Your task to perform on an android device: Go to settings Image 0: 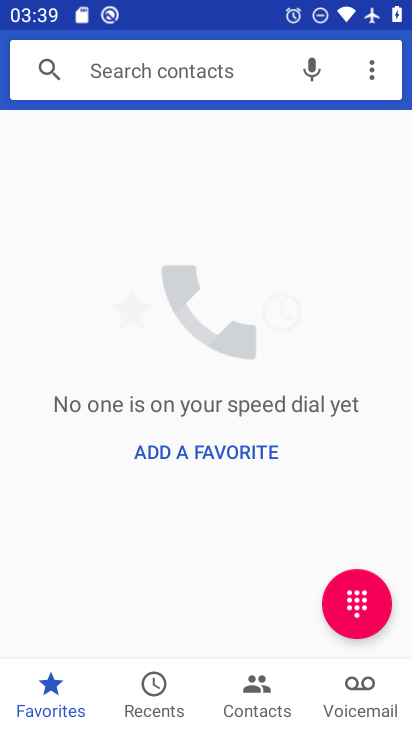
Step 0: press home button
Your task to perform on an android device: Go to settings Image 1: 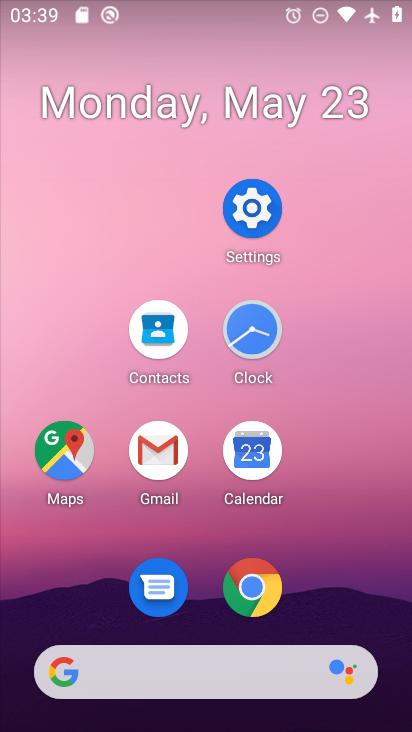
Step 1: click (262, 228)
Your task to perform on an android device: Go to settings Image 2: 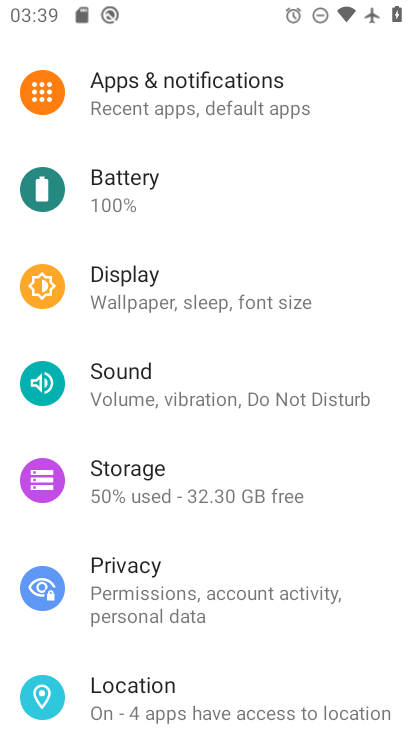
Step 2: task complete